Your task to perform on an android device: see tabs open on other devices in the chrome app Image 0: 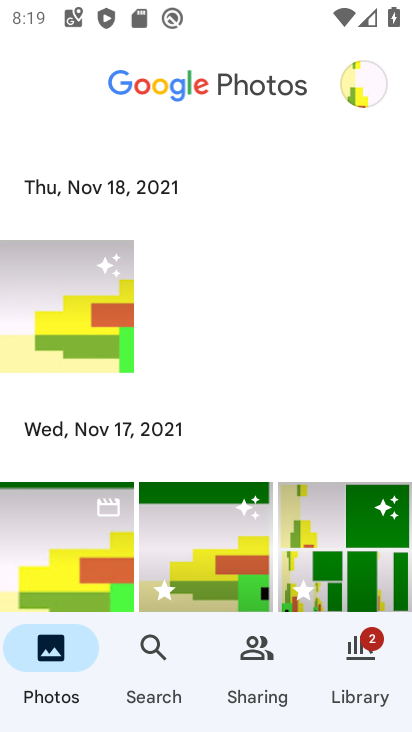
Step 0: press home button
Your task to perform on an android device: see tabs open on other devices in the chrome app Image 1: 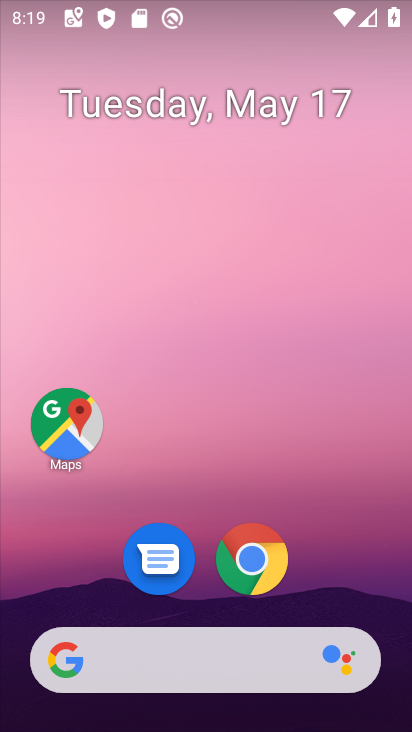
Step 1: click (264, 538)
Your task to perform on an android device: see tabs open on other devices in the chrome app Image 2: 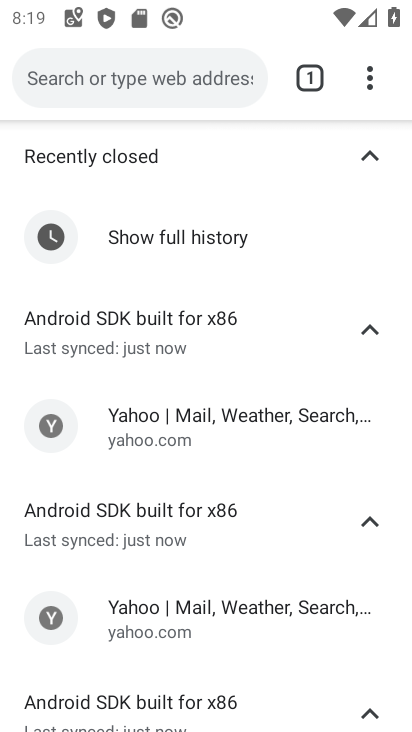
Step 2: task complete